Your task to perform on an android device: Open my contact list Image 0: 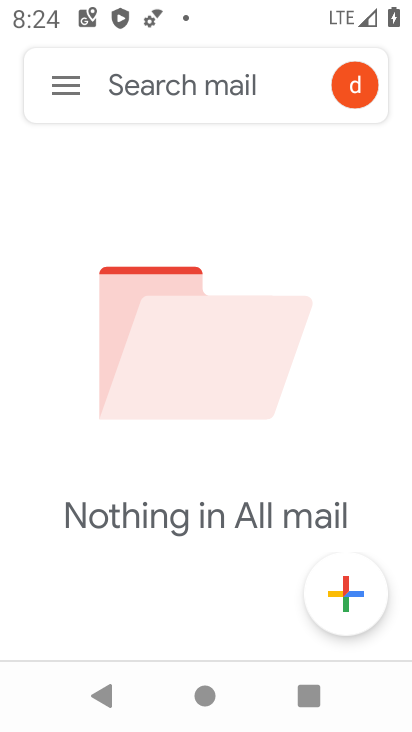
Step 0: press home button
Your task to perform on an android device: Open my contact list Image 1: 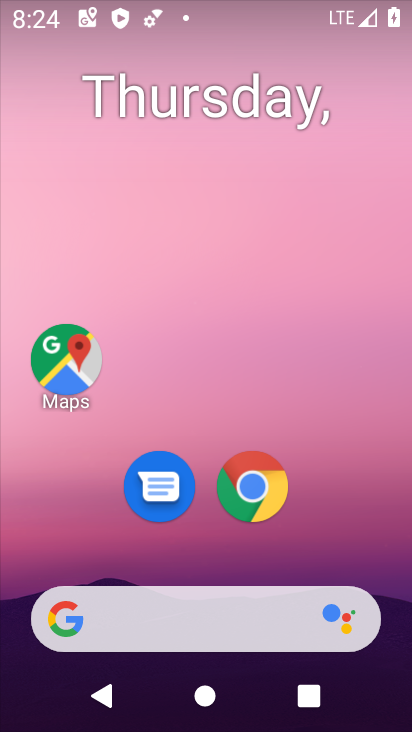
Step 1: drag from (134, 591) to (276, 152)
Your task to perform on an android device: Open my contact list Image 2: 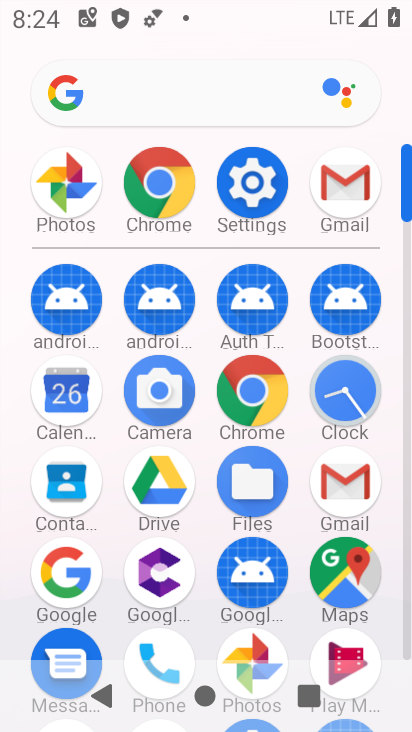
Step 2: click (62, 504)
Your task to perform on an android device: Open my contact list Image 3: 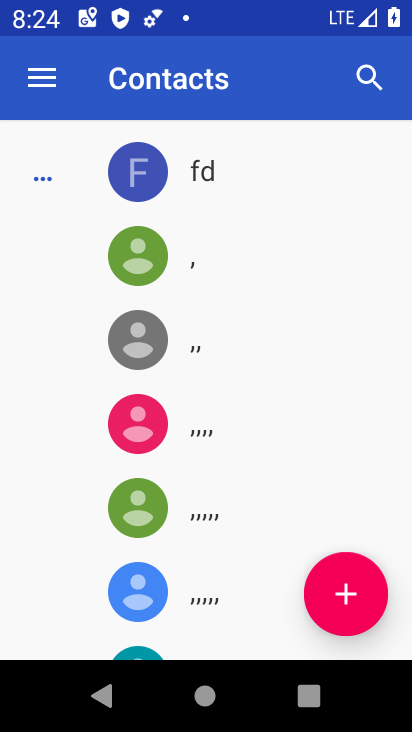
Step 3: task complete